Your task to perform on an android device: turn off airplane mode Image 0: 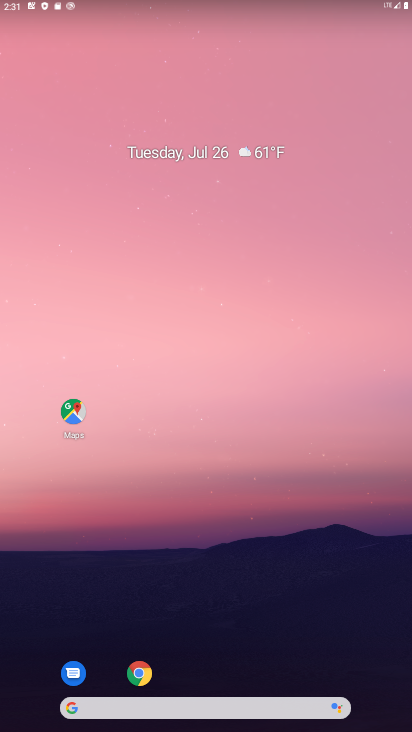
Step 0: drag from (174, 627) to (252, 118)
Your task to perform on an android device: turn off airplane mode Image 1: 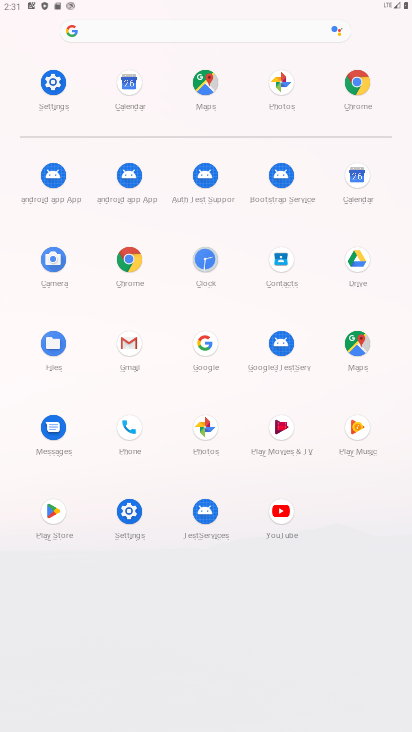
Step 1: click (129, 513)
Your task to perform on an android device: turn off airplane mode Image 2: 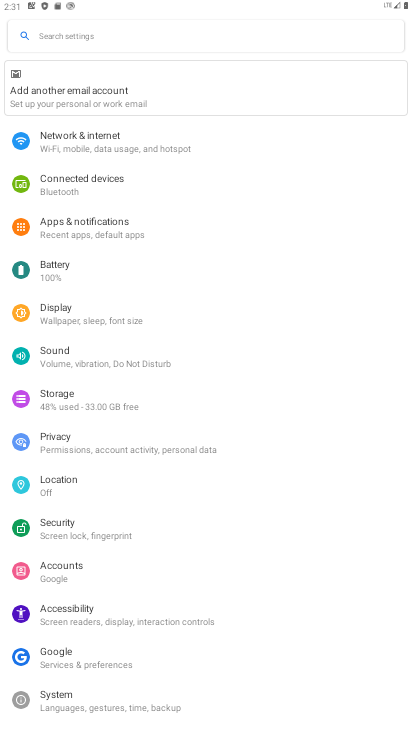
Step 2: click (146, 138)
Your task to perform on an android device: turn off airplane mode Image 3: 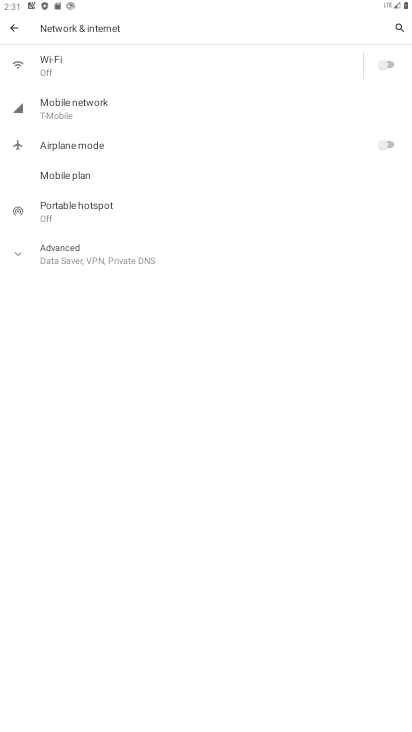
Step 3: task complete